Your task to perform on an android device: change the clock display to show seconds Image 0: 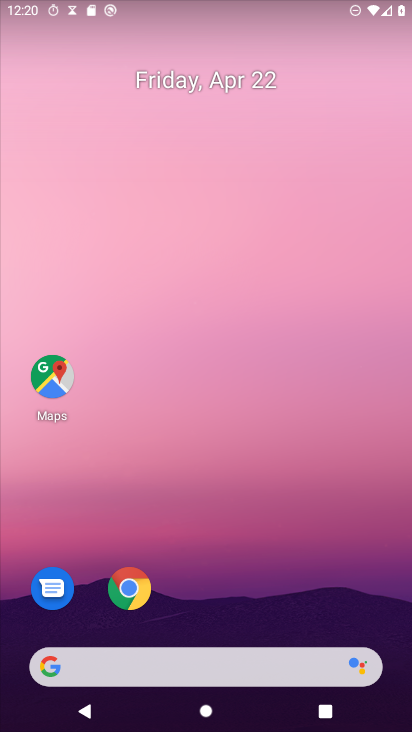
Step 0: drag from (232, 630) to (306, 215)
Your task to perform on an android device: change the clock display to show seconds Image 1: 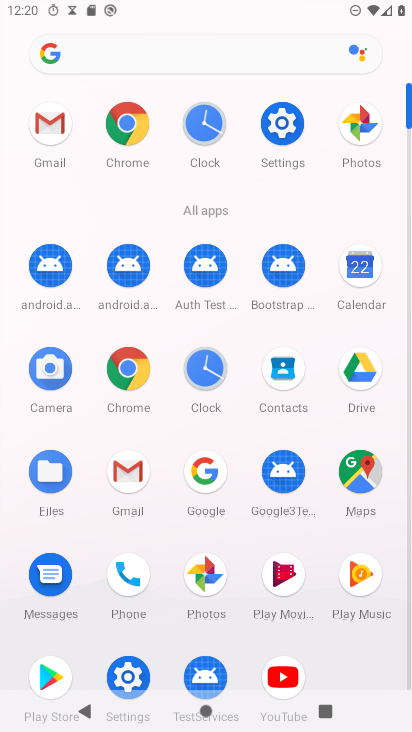
Step 1: click (208, 383)
Your task to perform on an android device: change the clock display to show seconds Image 2: 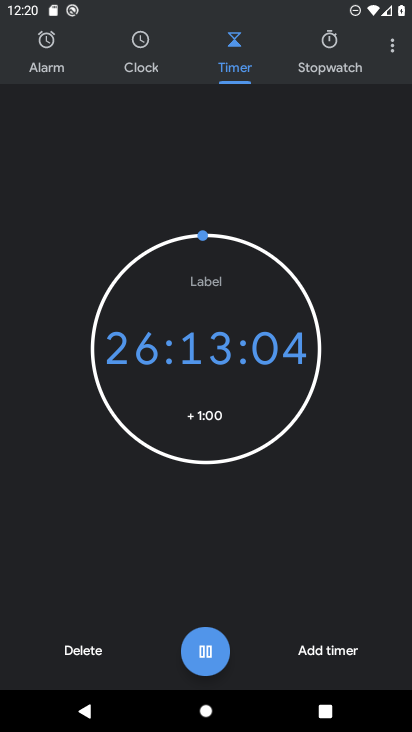
Step 2: click (390, 43)
Your task to perform on an android device: change the clock display to show seconds Image 3: 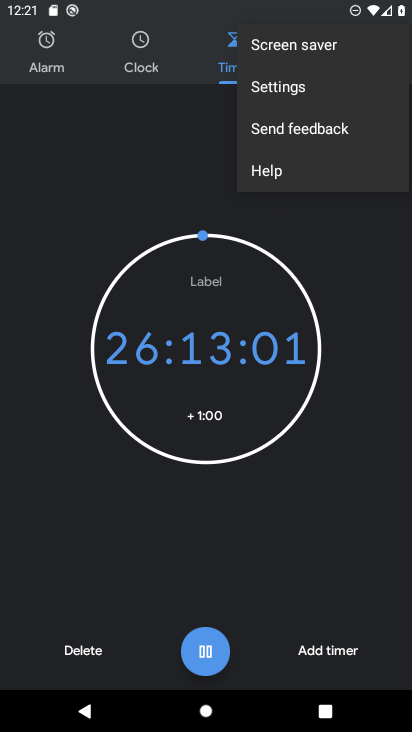
Step 3: click (332, 90)
Your task to perform on an android device: change the clock display to show seconds Image 4: 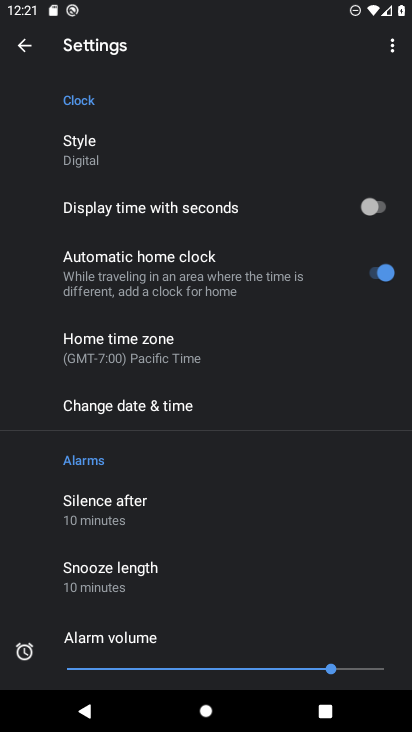
Step 4: click (369, 213)
Your task to perform on an android device: change the clock display to show seconds Image 5: 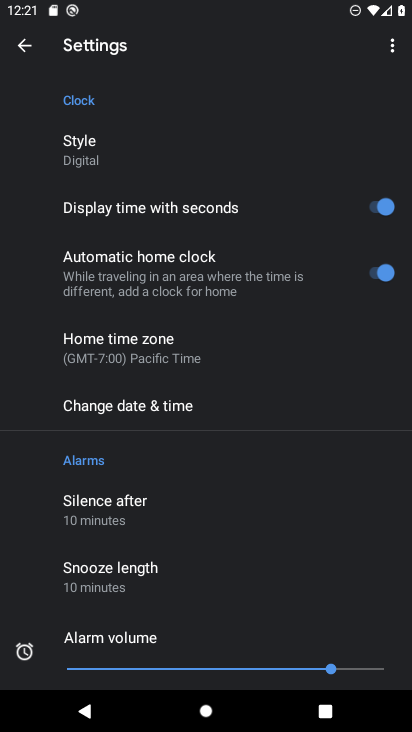
Step 5: task complete